Your task to perform on an android device: turn off improve location accuracy Image 0: 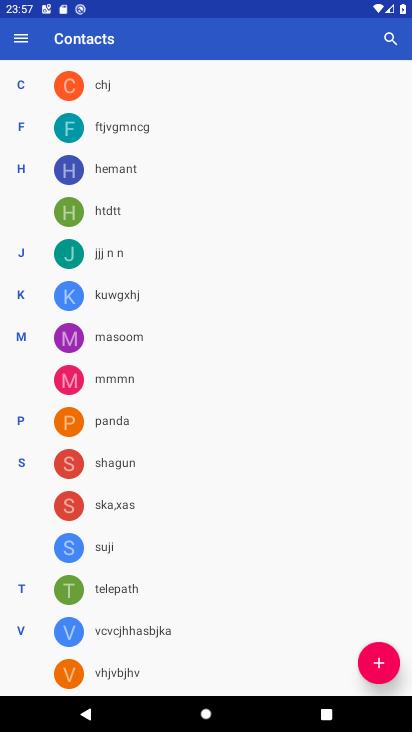
Step 0: press home button
Your task to perform on an android device: turn off improve location accuracy Image 1: 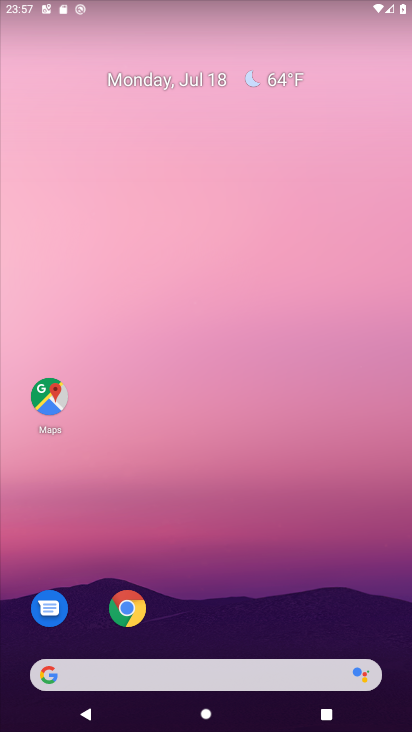
Step 1: drag from (231, 584) to (275, 0)
Your task to perform on an android device: turn off improve location accuracy Image 2: 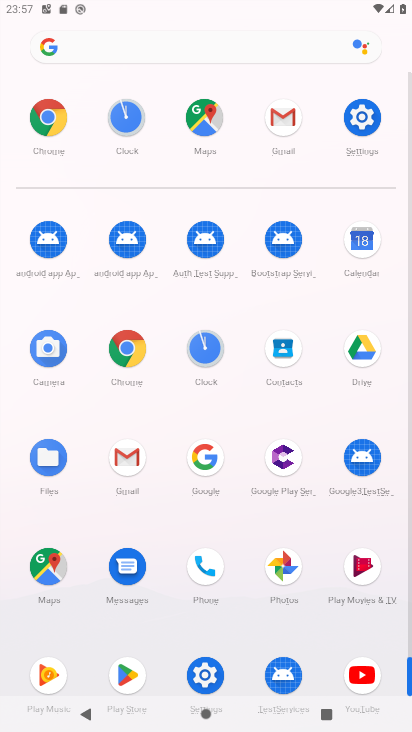
Step 2: click (212, 679)
Your task to perform on an android device: turn off improve location accuracy Image 3: 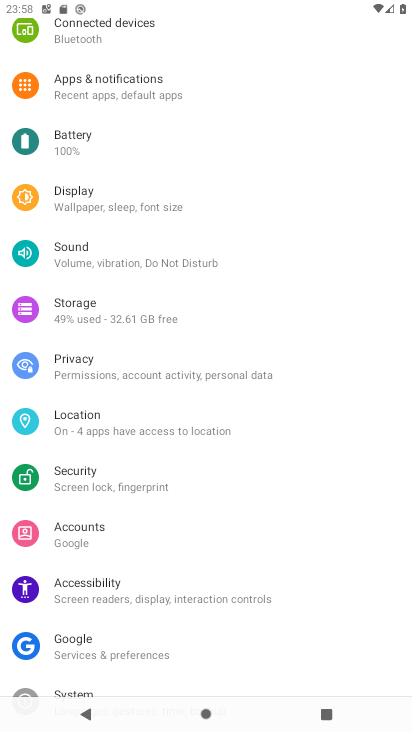
Step 3: click (167, 437)
Your task to perform on an android device: turn off improve location accuracy Image 4: 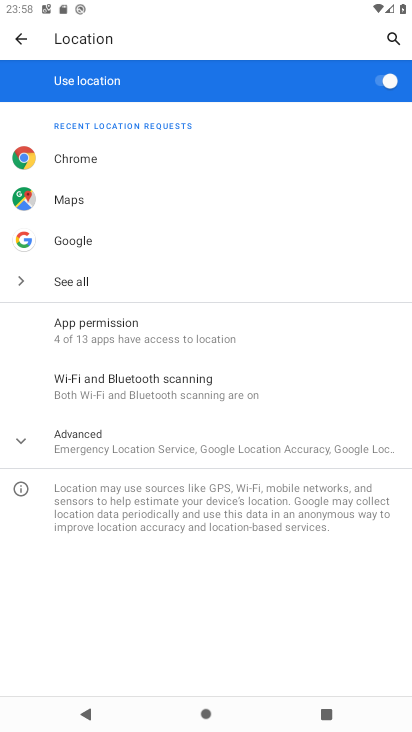
Step 4: click (181, 441)
Your task to perform on an android device: turn off improve location accuracy Image 5: 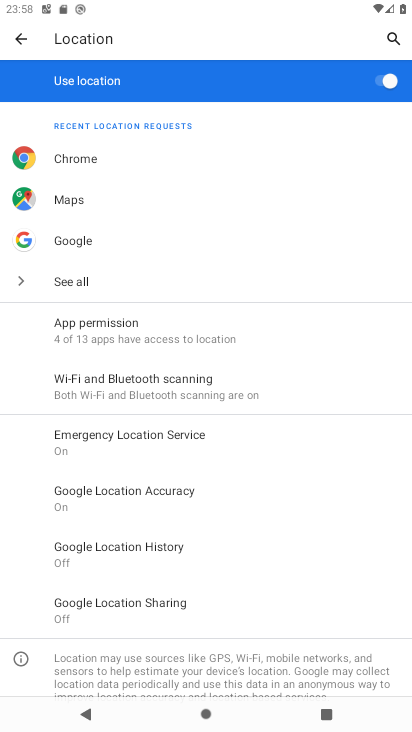
Step 5: click (222, 501)
Your task to perform on an android device: turn off improve location accuracy Image 6: 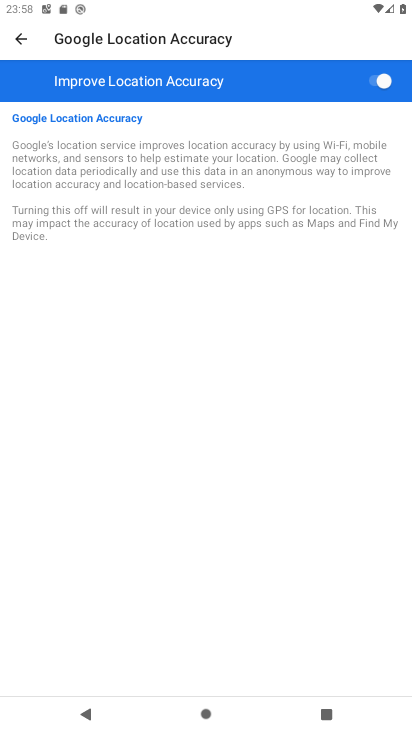
Step 6: click (380, 76)
Your task to perform on an android device: turn off improve location accuracy Image 7: 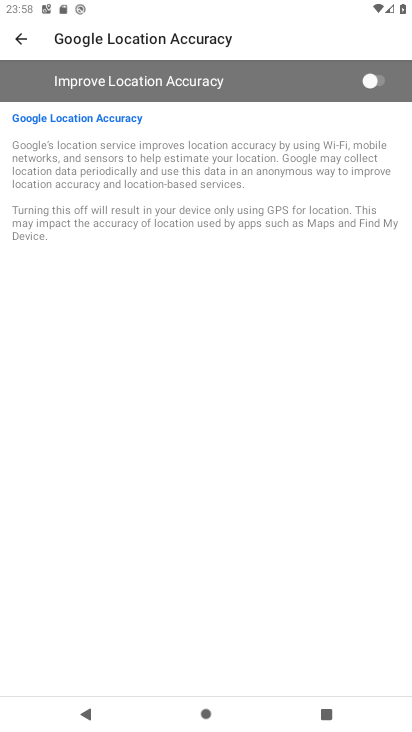
Step 7: task complete